Your task to perform on an android device: Set the phone to "Do not disturb". Image 0: 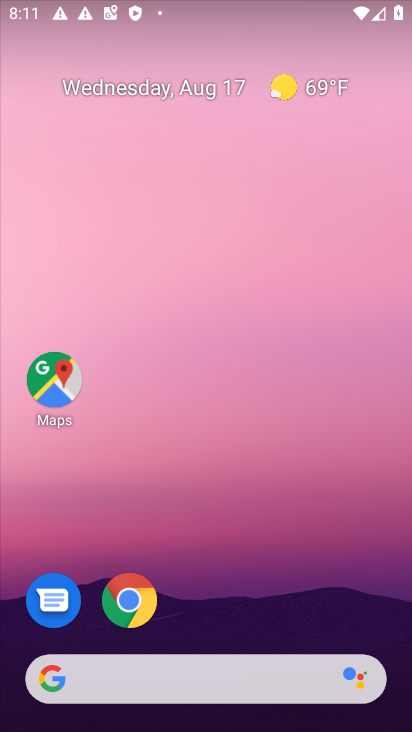
Step 0: press home button
Your task to perform on an android device: Set the phone to "Do not disturb". Image 1: 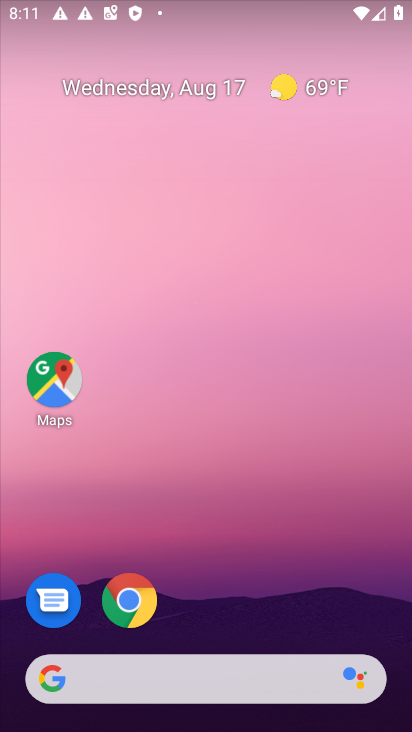
Step 1: drag from (249, 0) to (235, 464)
Your task to perform on an android device: Set the phone to "Do not disturb". Image 2: 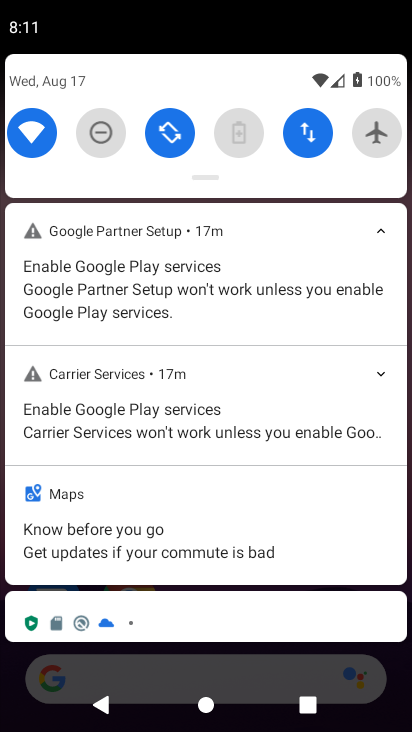
Step 2: drag from (203, 189) to (214, 670)
Your task to perform on an android device: Set the phone to "Do not disturb". Image 3: 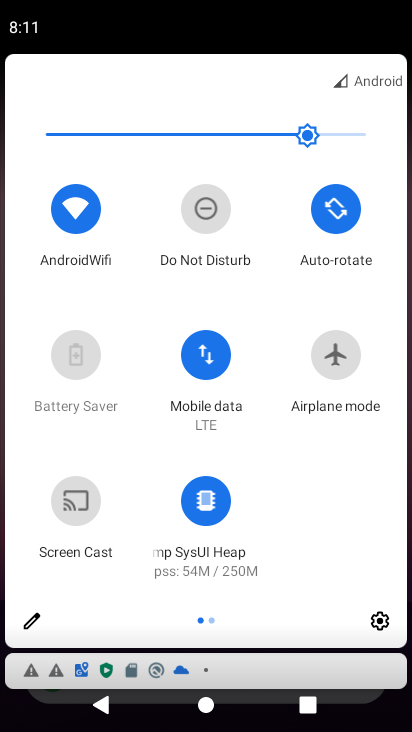
Step 3: click (204, 213)
Your task to perform on an android device: Set the phone to "Do not disturb". Image 4: 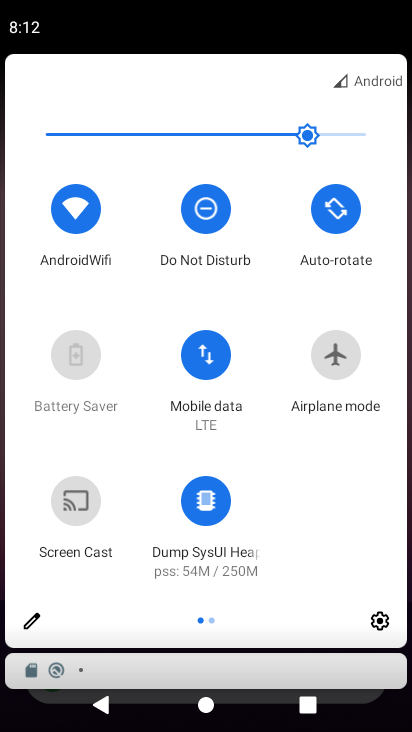
Step 4: task complete